Your task to perform on an android device: Is it going to rain today? Image 0: 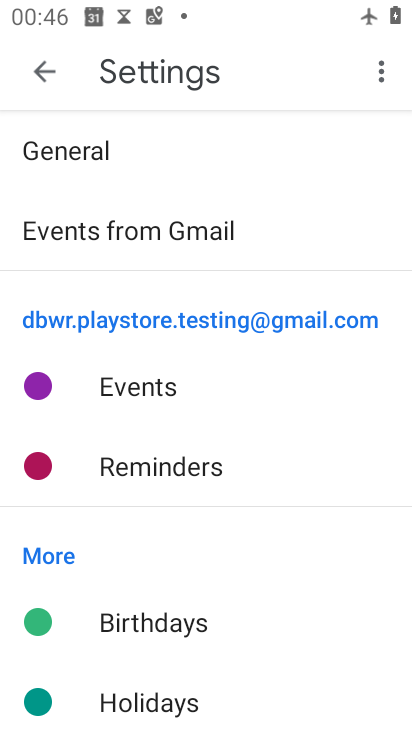
Step 0: press home button
Your task to perform on an android device: Is it going to rain today? Image 1: 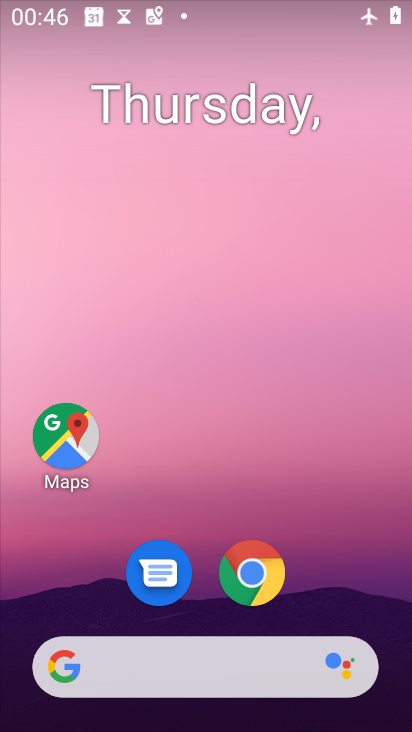
Step 1: click (259, 565)
Your task to perform on an android device: Is it going to rain today? Image 2: 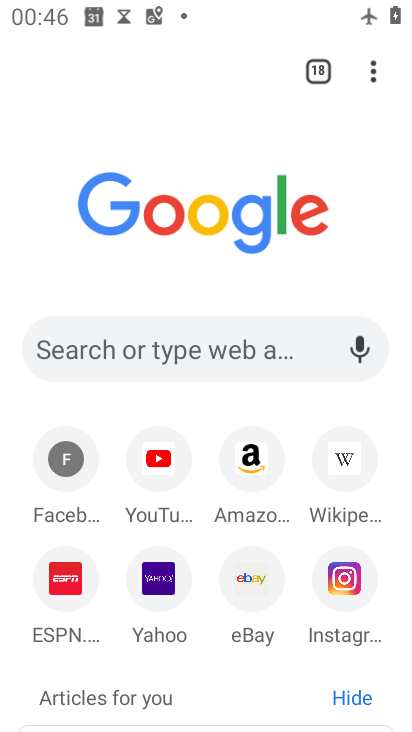
Step 2: click (229, 349)
Your task to perform on an android device: Is it going to rain today? Image 3: 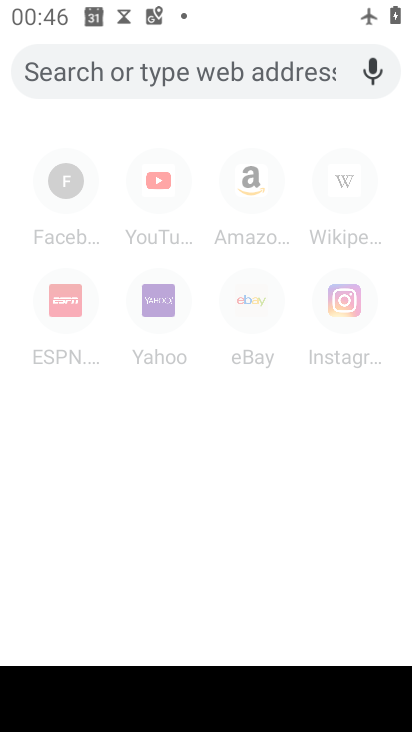
Step 3: type "Is it going to rain today?"
Your task to perform on an android device: Is it going to rain today? Image 4: 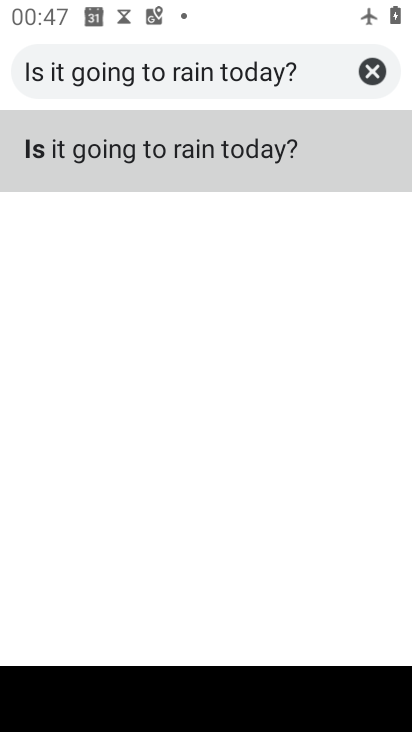
Step 4: click (294, 151)
Your task to perform on an android device: Is it going to rain today? Image 5: 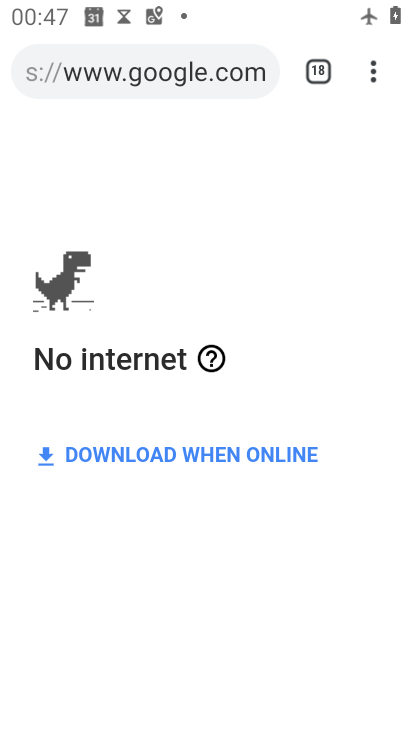
Step 5: task complete